Your task to perform on an android device: What's the weather going to be tomorrow? Image 0: 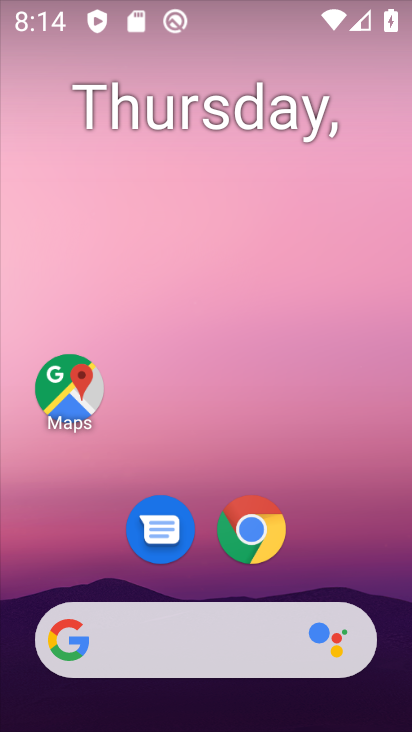
Step 0: press home button
Your task to perform on an android device: What's the weather going to be tomorrow? Image 1: 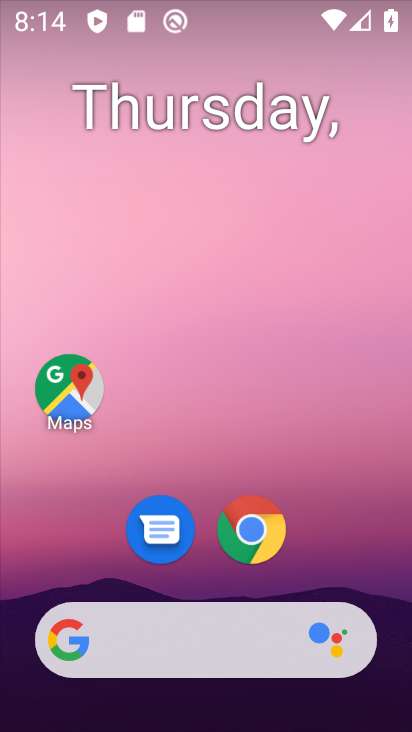
Step 1: click (80, 639)
Your task to perform on an android device: What's the weather going to be tomorrow? Image 2: 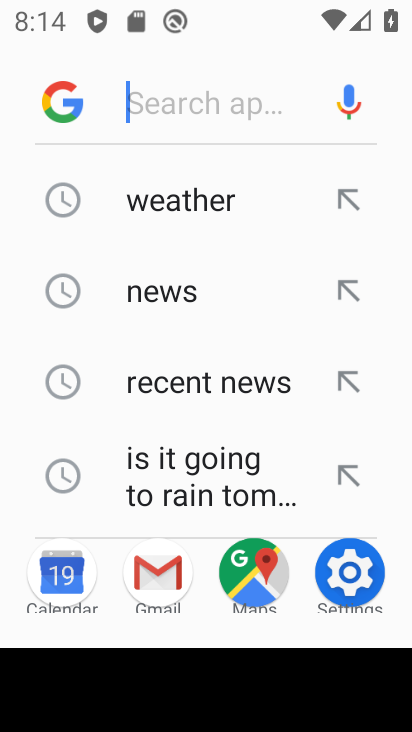
Step 2: click (200, 199)
Your task to perform on an android device: What's the weather going to be tomorrow? Image 3: 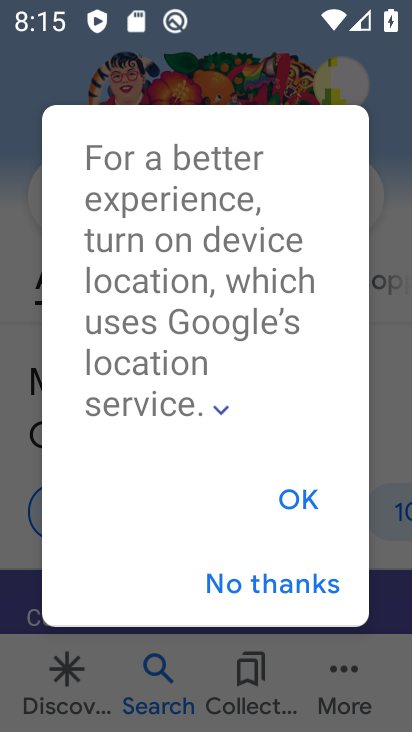
Step 3: click (288, 504)
Your task to perform on an android device: What's the weather going to be tomorrow? Image 4: 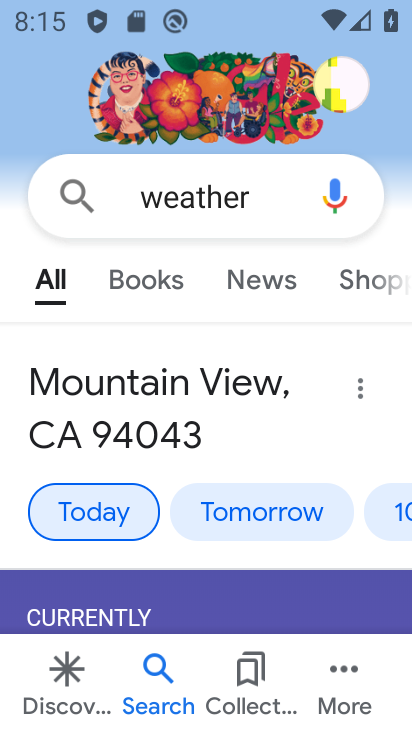
Step 4: click (265, 514)
Your task to perform on an android device: What's the weather going to be tomorrow? Image 5: 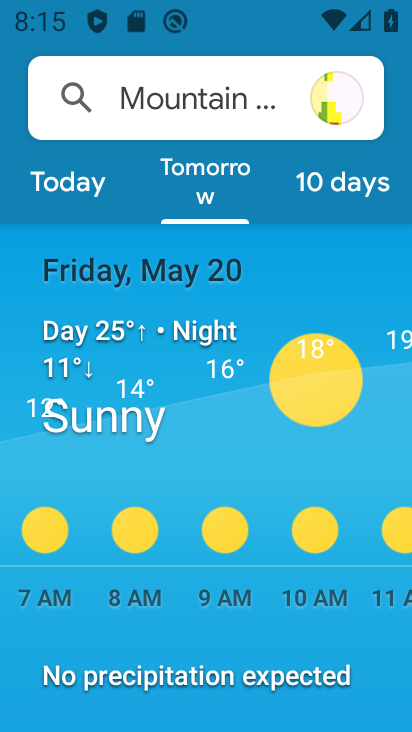
Step 5: task complete